Your task to perform on an android device: Show me popular games on the Play Store Image 0: 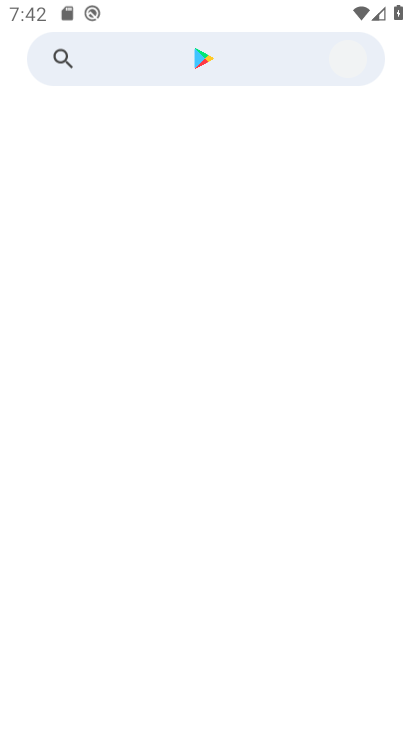
Step 0: press home button
Your task to perform on an android device: Show me popular games on the Play Store Image 1: 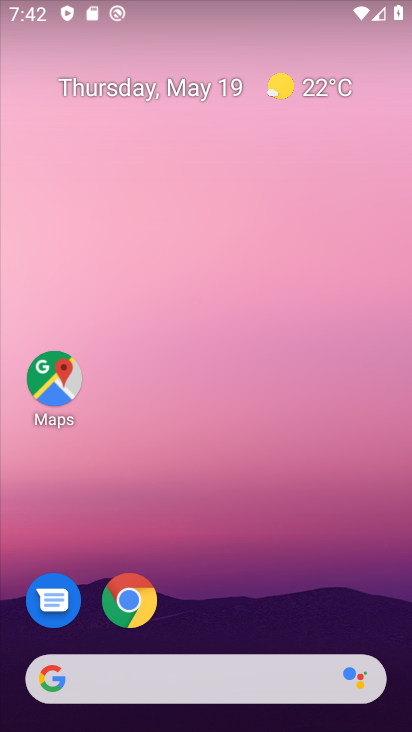
Step 1: drag from (235, 599) to (243, 39)
Your task to perform on an android device: Show me popular games on the Play Store Image 2: 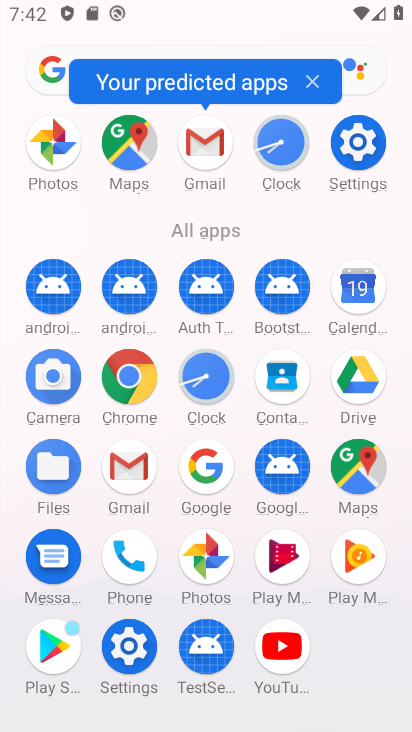
Step 2: click (57, 639)
Your task to perform on an android device: Show me popular games on the Play Store Image 3: 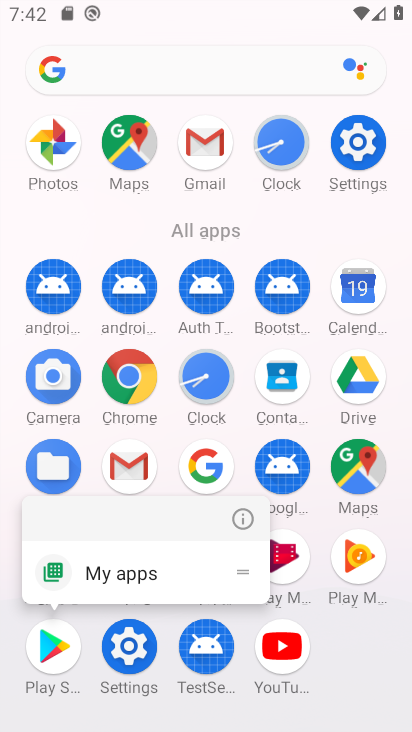
Step 3: click (53, 653)
Your task to perform on an android device: Show me popular games on the Play Store Image 4: 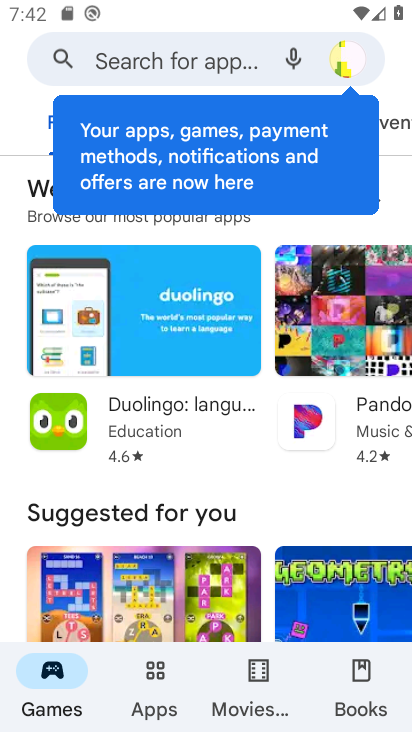
Step 4: drag from (349, 372) to (322, 60)
Your task to perform on an android device: Show me popular games on the Play Store Image 5: 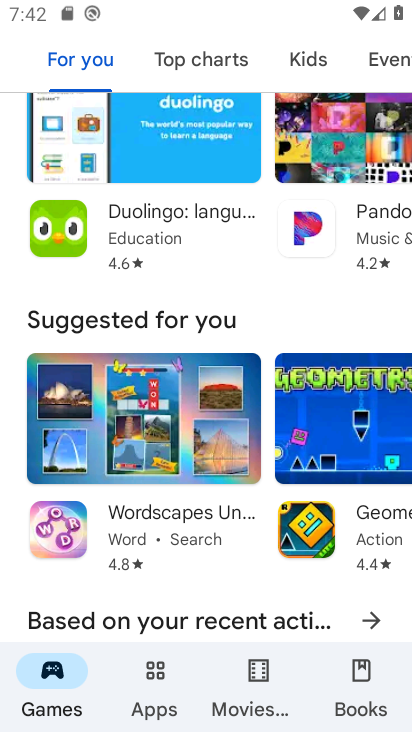
Step 5: drag from (209, 569) to (234, 84)
Your task to perform on an android device: Show me popular games on the Play Store Image 6: 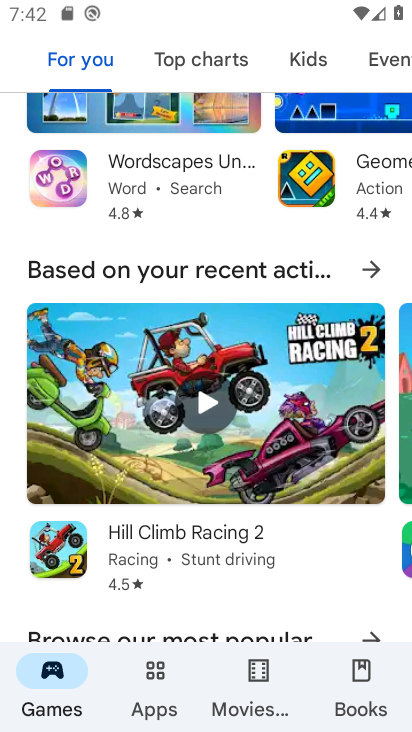
Step 6: drag from (248, 588) to (248, 155)
Your task to perform on an android device: Show me popular games on the Play Store Image 7: 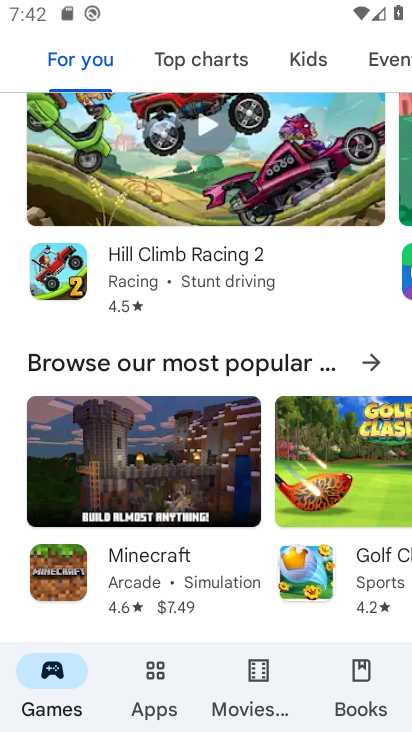
Step 7: click (360, 362)
Your task to perform on an android device: Show me popular games on the Play Store Image 8: 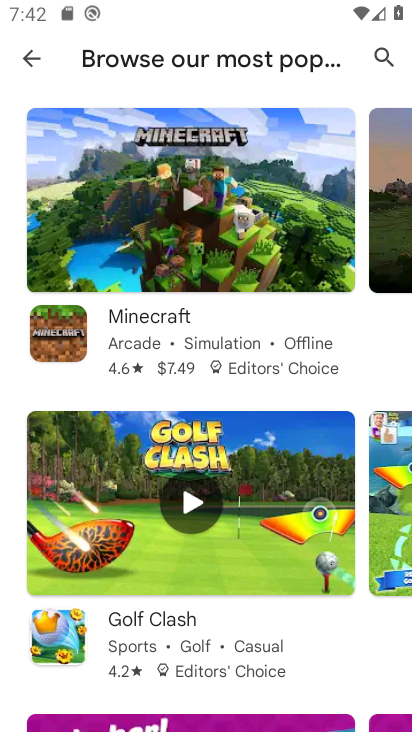
Step 8: task complete